Your task to perform on an android device: add a label to a message in the gmail app Image 0: 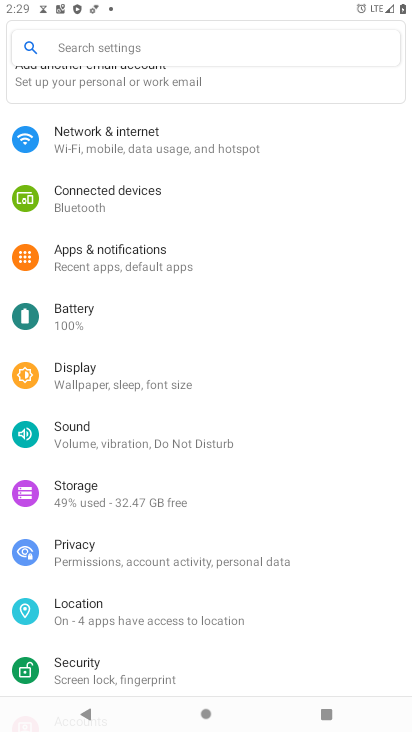
Step 0: press home button
Your task to perform on an android device: add a label to a message in the gmail app Image 1: 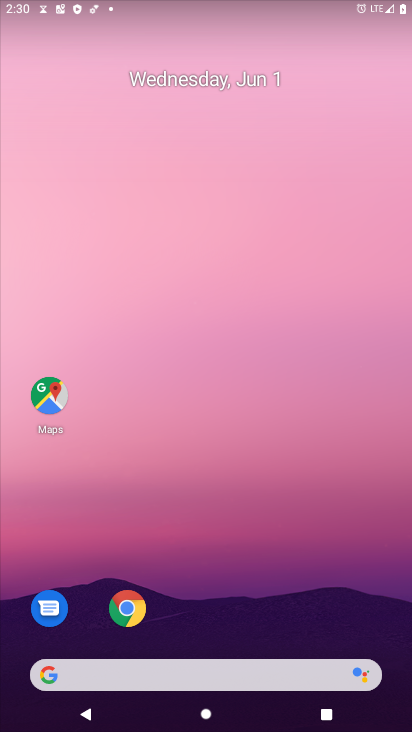
Step 1: drag from (229, 545) to (287, 53)
Your task to perform on an android device: add a label to a message in the gmail app Image 2: 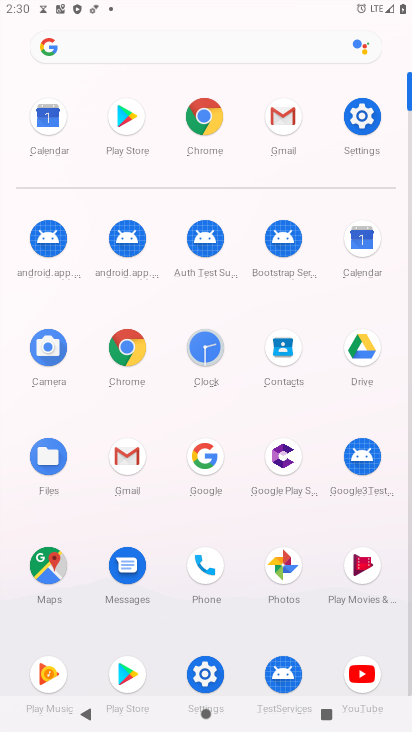
Step 2: click (285, 132)
Your task to perform on an android device: add a label to a message in the gmail app Image 3: 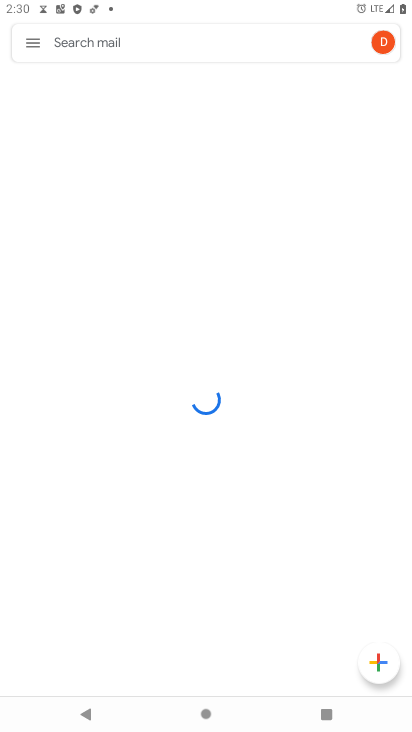
Step 3: click (20, 43)
Your task to perform on an android device: add a label to a message in the gmail app Image 4: 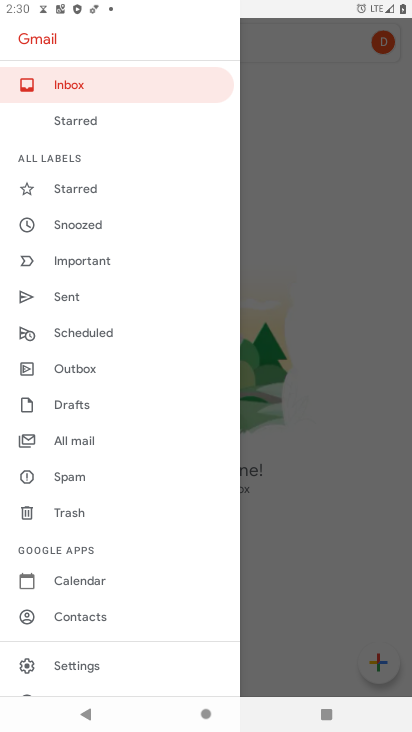
Step 4: drag from (163, 513) to (169, 228)
Your task to perform on an android device: add a label to a message in the gmail app Image 5: 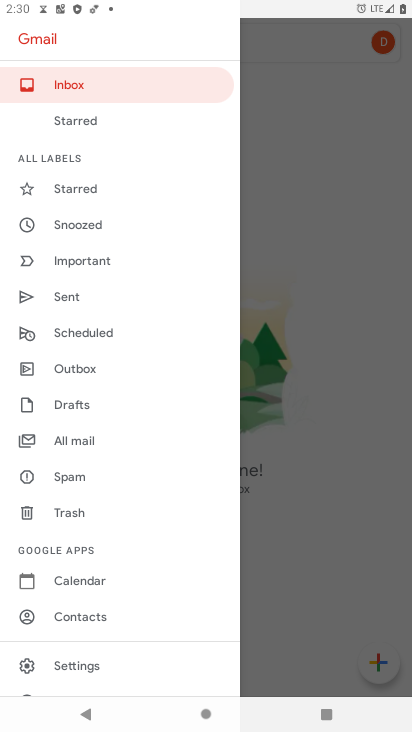
Step 5: click (99, 443)
Your task to perform on an android device: add a label to a message in the gmail app Image 6: 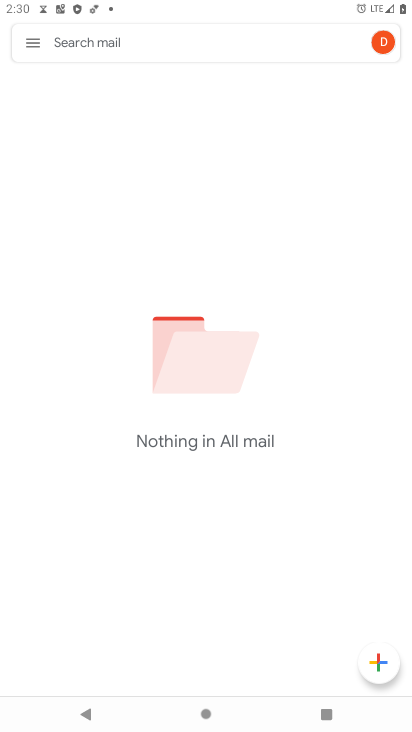
Step 6: task complete